Your task to perform on an android device: manage bookmarks in the chrome app Image 0: 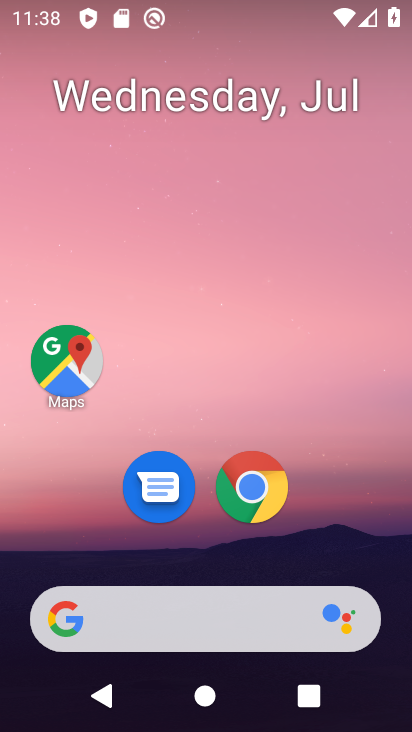
Step 0: drag from (188, 611) to (254, 144)
Your task to perform on an android device: manage bookmarks in the chrome app Image 1: 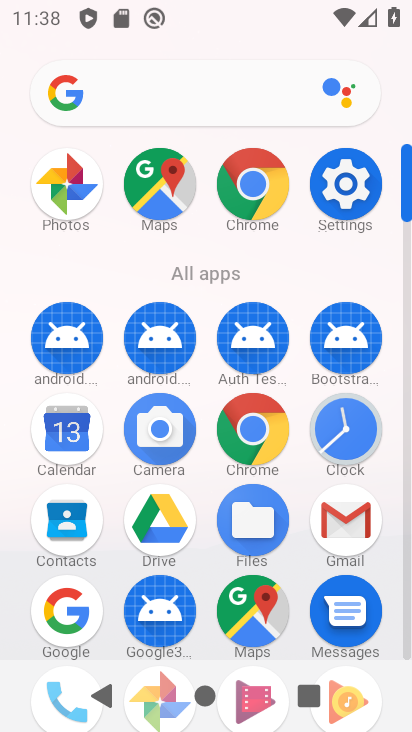
Step 1: click (265, 441)
Your task to perform on an android device: manage bookmarks in the chrome app Image 2: 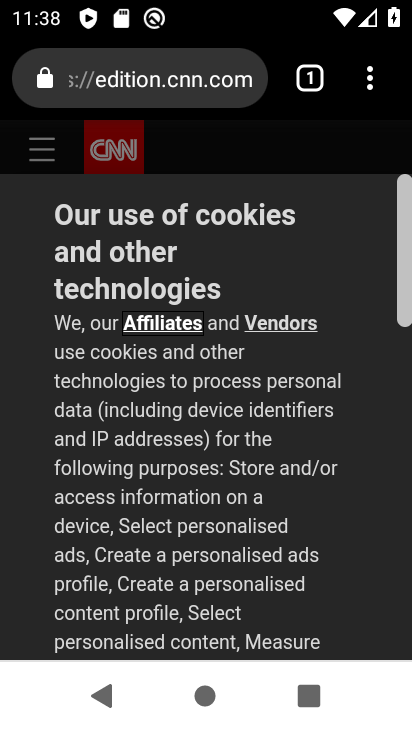
Step 2: click (380, 92)
Your task to perform on an android device: manage bookmarks in the chrome app Image 3: 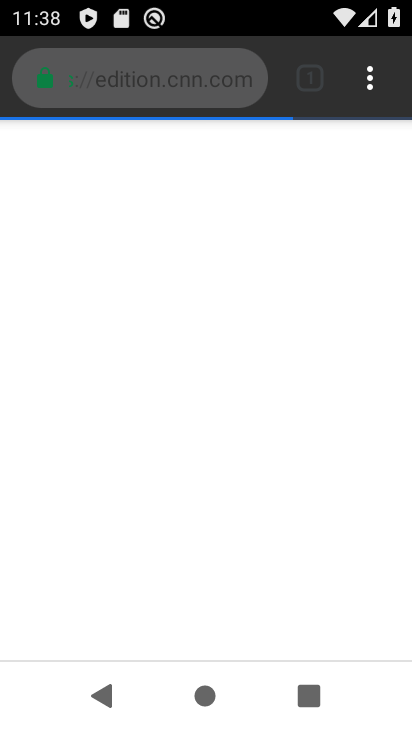
Step 3: click (374, 83)
Your task to perform on an android device: manage bookmarks in the chrome app Image 4: 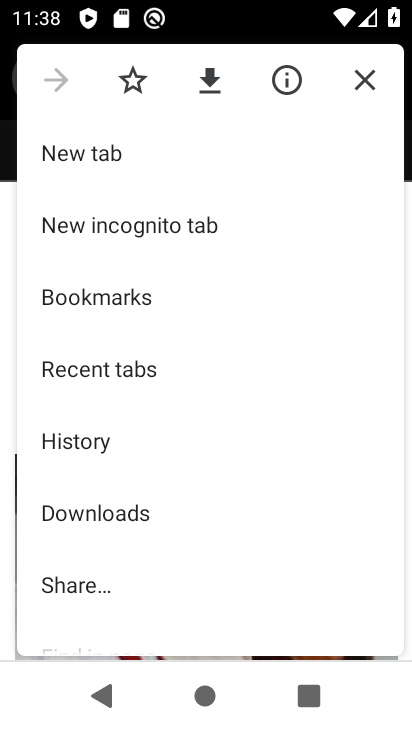
Step 4: click (106, 303)
Your task to perform on an android device: manage bookmarks in the chrome app Image 5: 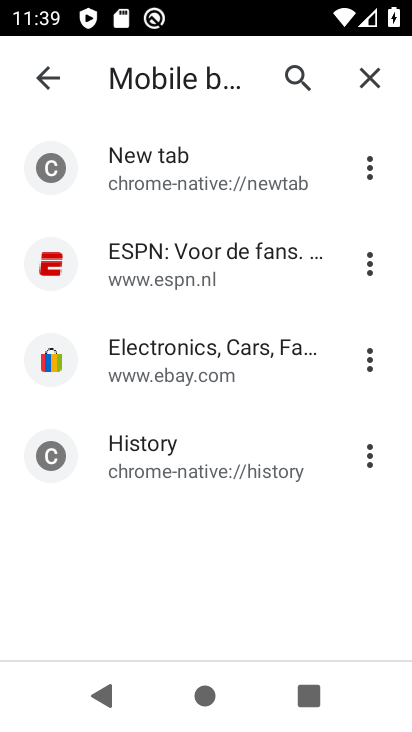
Step 5: task complete